Your task to perform on an android device: star an email in the gmail app Image 0: 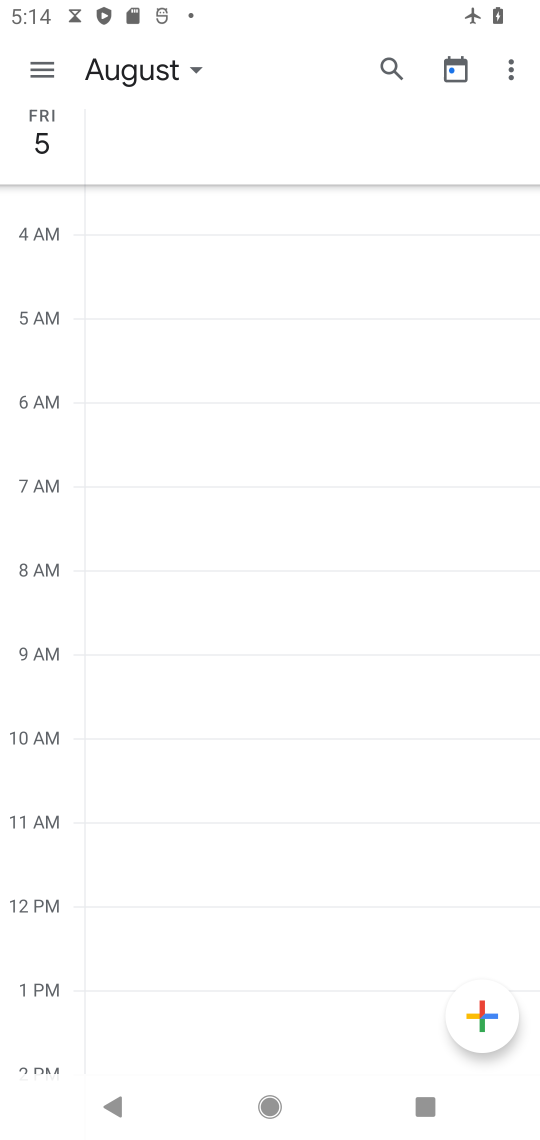
Step 0: press home button
Your task to perform on an android device: star an email in the gmail app Image 1: 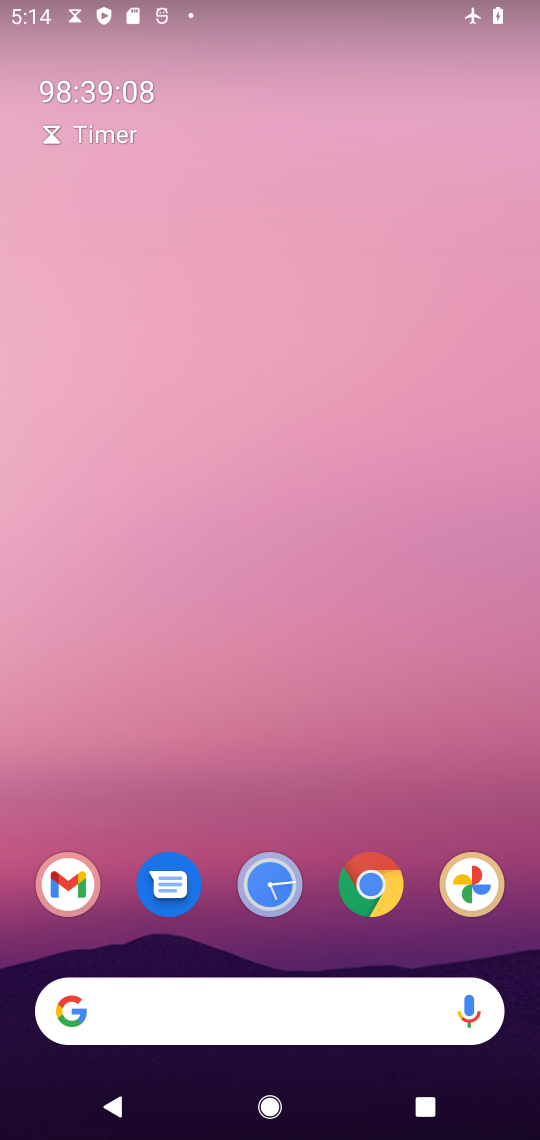
Step 1: drag from (206, 939) to (267, 87)
Your task to perform on an android device: star an email in the gmail app Image 2: 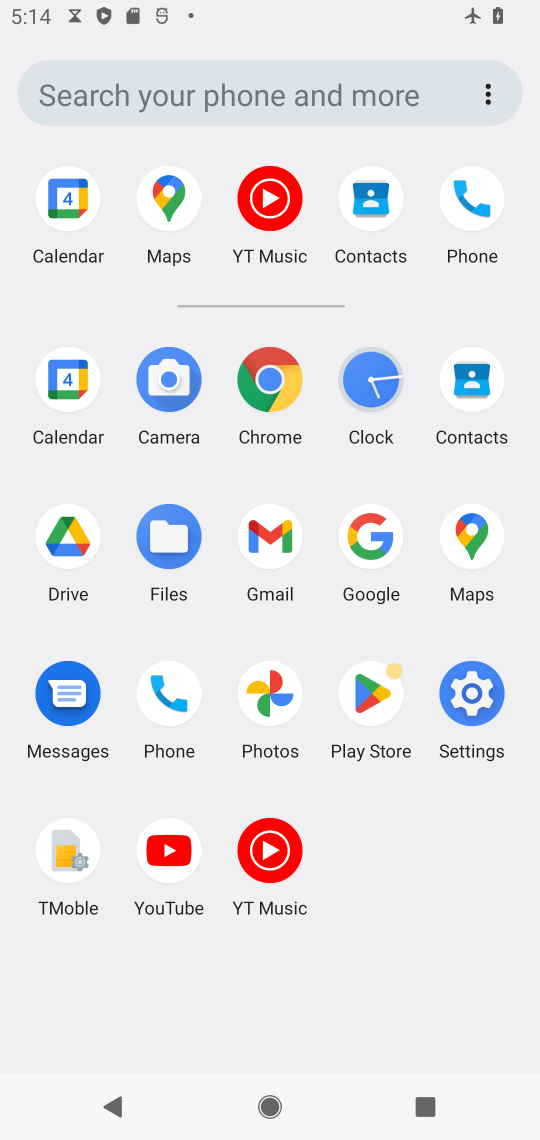
Step 2: click (271, 526)
Your task to perform on an android device: star an email in the gmail app Image 3: 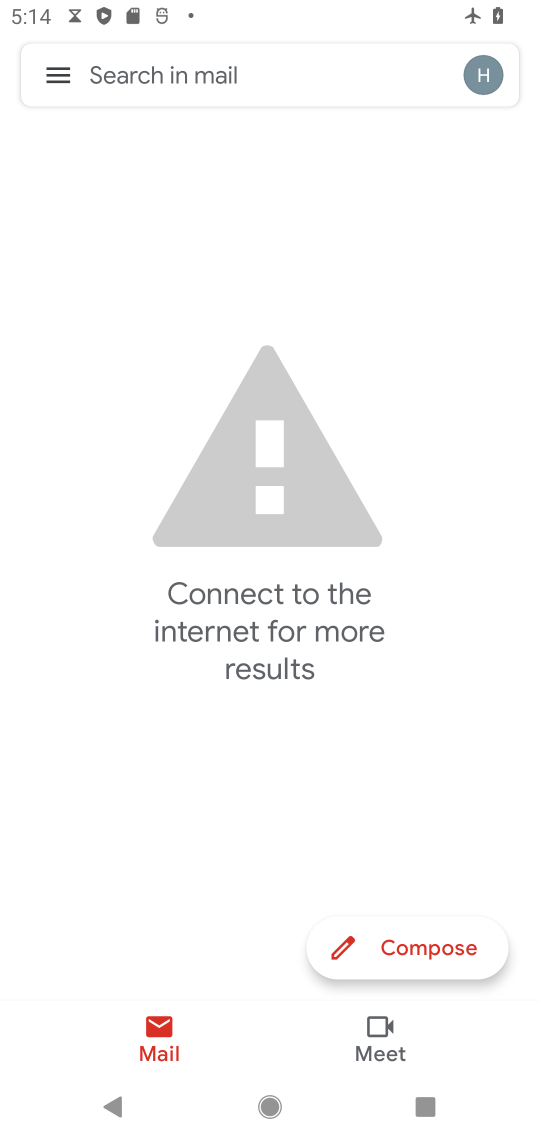
Step 3: click (52, 87)
Your task to perform on an android device: star an email in the gmail app Image 4: 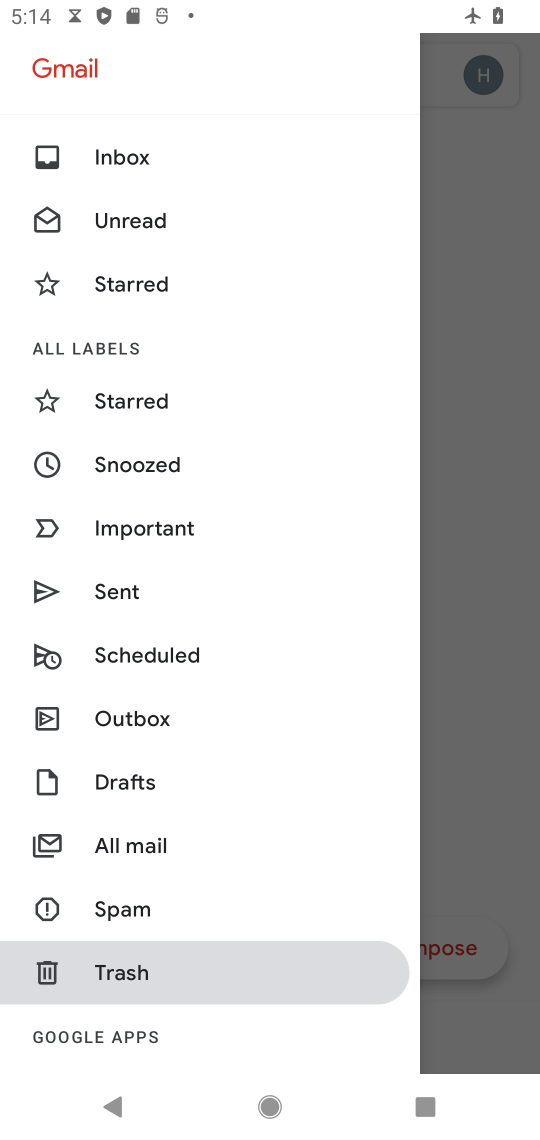
Step 4: click (142, 399)
Your task to perform on an android device: star an email in the gmail app Image 5: 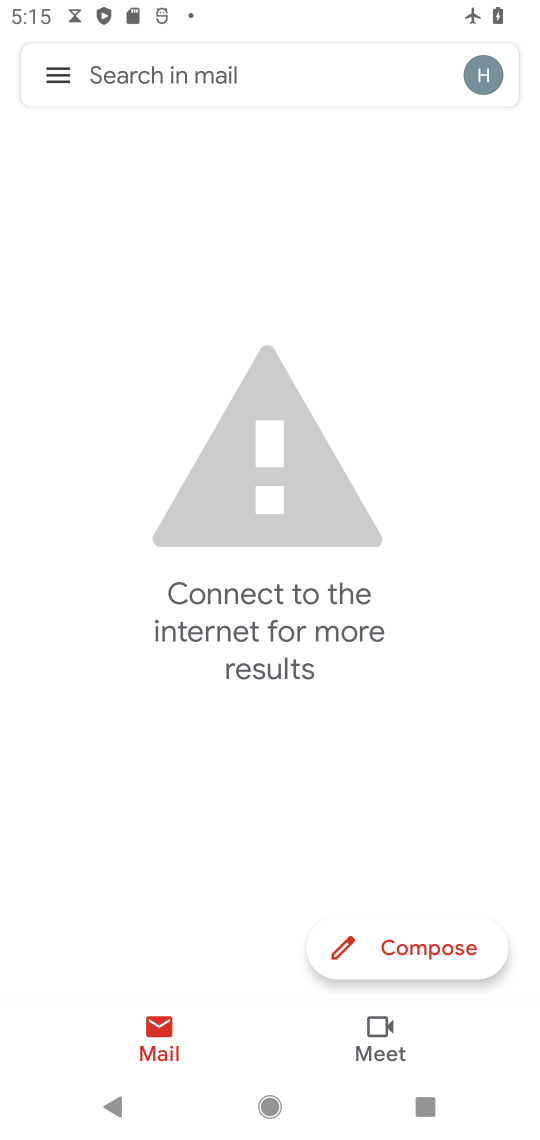
Step 5: task complete